Your task to perform on an android device: stop showing notifications on the lock screen Image 0: 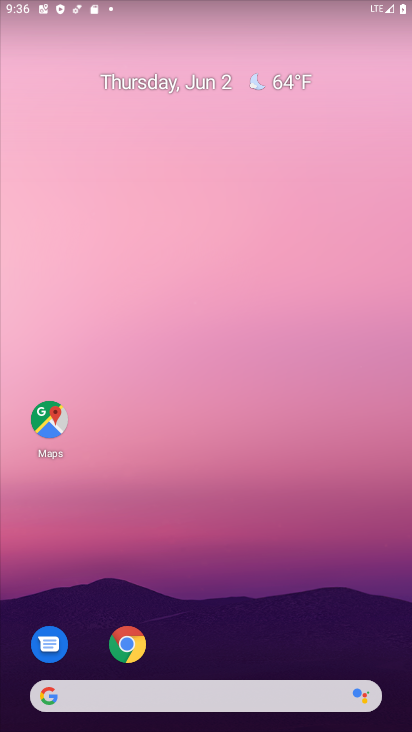
Step 0: press home button
Your task to perform on an android device: stop showing notifications on the lock screen Image 1: 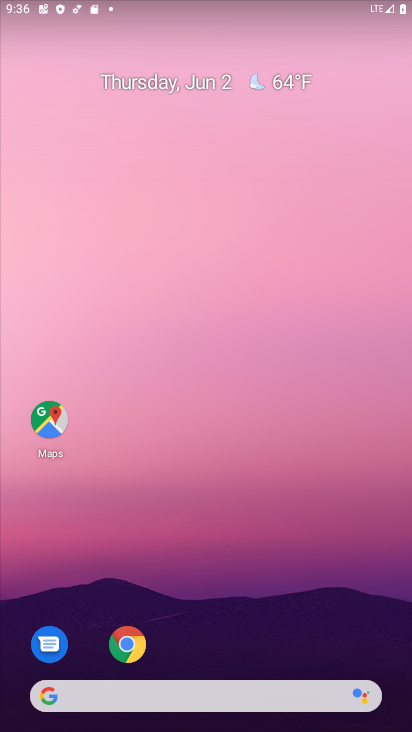
Step 1: drag from (293, 634) to (333, 354)
Your task to perform on an android device: stop showing notifications on the lock screen Image 2: 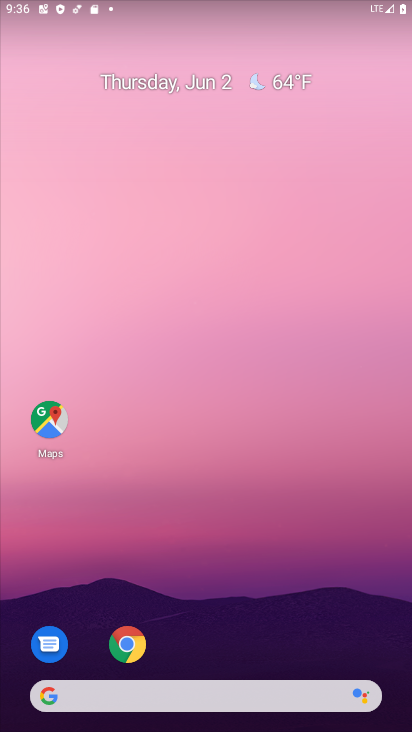
Step 2: drag from (297, 648) to (187, 37)
Your task to perform on an android device: stop showing notifications on the lock screen Image 3: 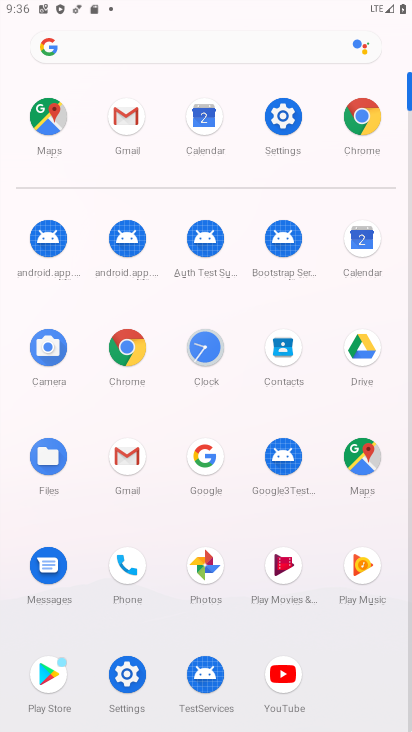
Step 3: click (297, 111)
Your task to perform on an android device: stop showing notifications on the lock screen Image 4: 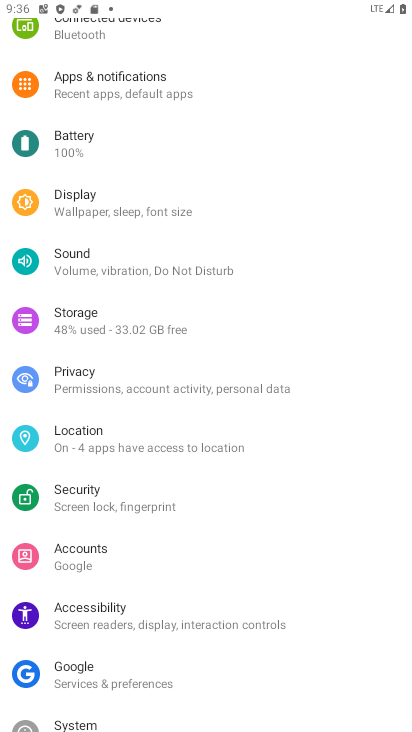
Step 4: click (85, 98)
Your task to perform on an android device: stop showing notifications on the lock screen Image 5: 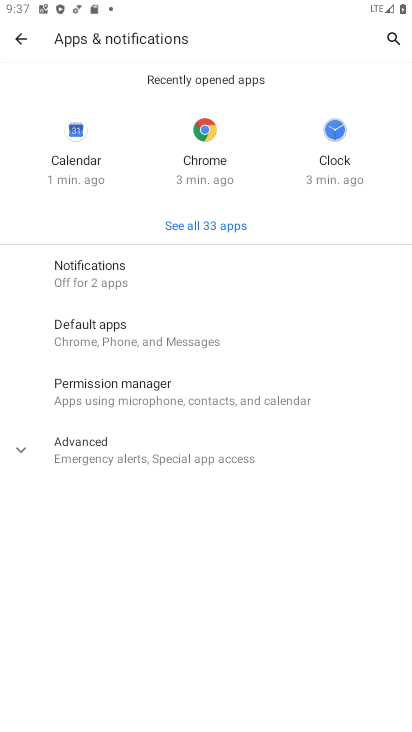
Step 5: click (109, 271)
Your task to perform on an android device: stop showing notifications on the lock screen Image 6: 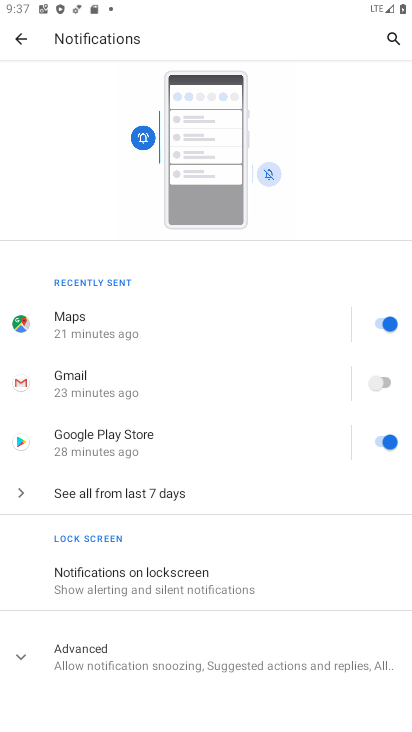
Step 6: click (84, 569)
Your task to perform on an android device: stop showing notifications on the lock screen Image 7: 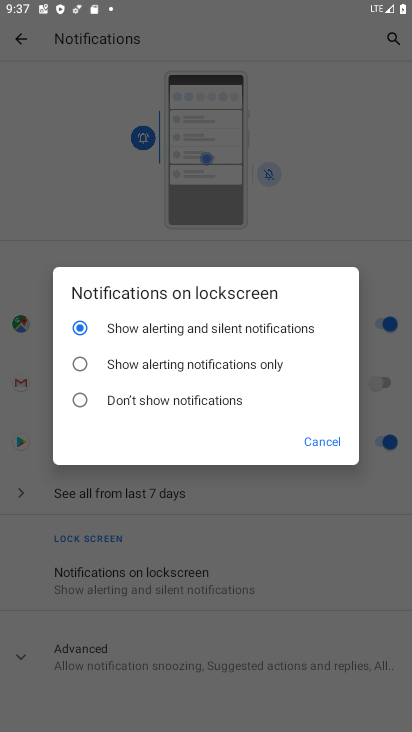
Step 7: click (85, 390)
Your task to perform on an android device: stop showing notifications on the lock screen Image 8: 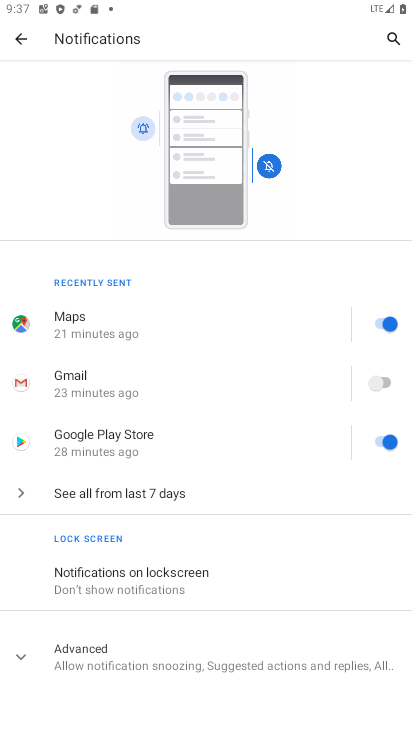
Step 8: task complete